Your task to perform on an android device: Open the calendar and show me this week's events? Image 0: 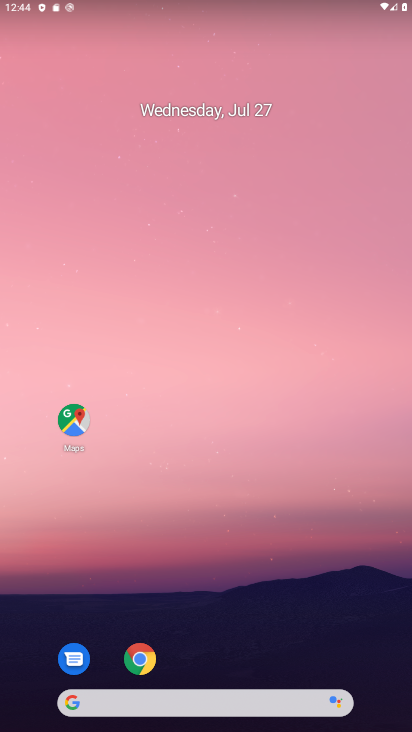
Step 0: drag from (229, 616) to (121, 4)
Your task to perform on an android device: Open the calendar and show me this week's events? Image 1: 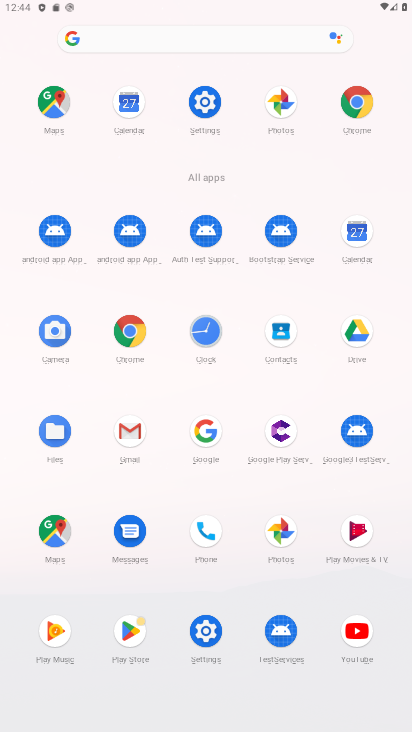
Step 1: click (370, 236)
Your task to perform on an android device: Open the calendar and show me this week's events? Image 2: 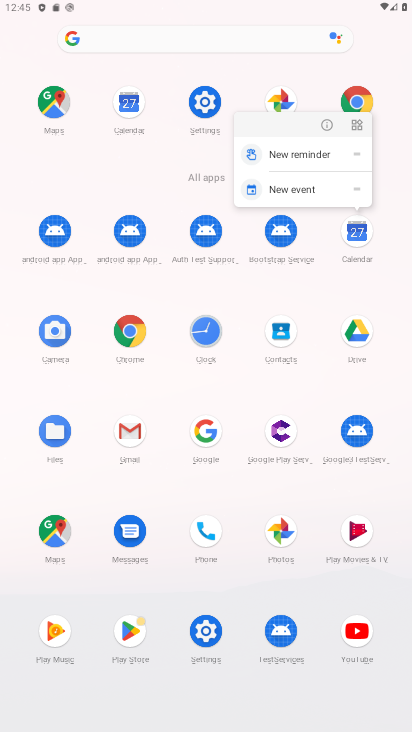
Step 2: click (363, 240)
Your task to perform on an android device: Open the calendar and show me this week's events? Image 3: 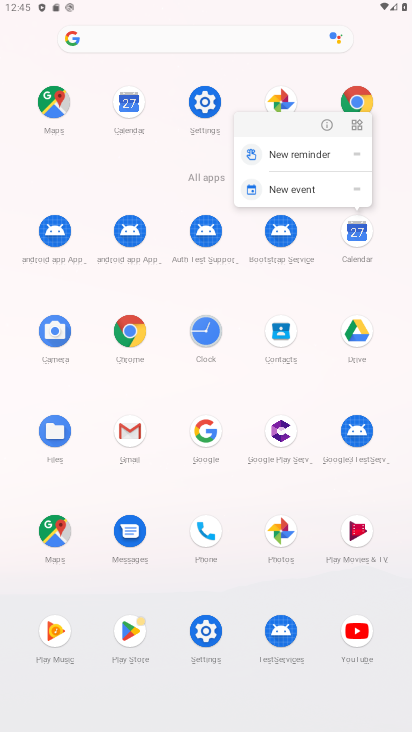
Step 3: click (365, 226)
Your task to perform on an android device: Open the calendar and show me this week's events? Image 4: 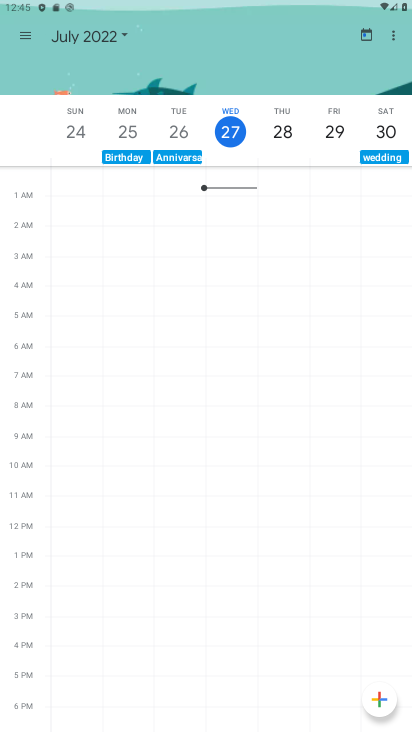
Step 4: task complete